Your task to perform on an android device: turn off airplane mode Image 0: 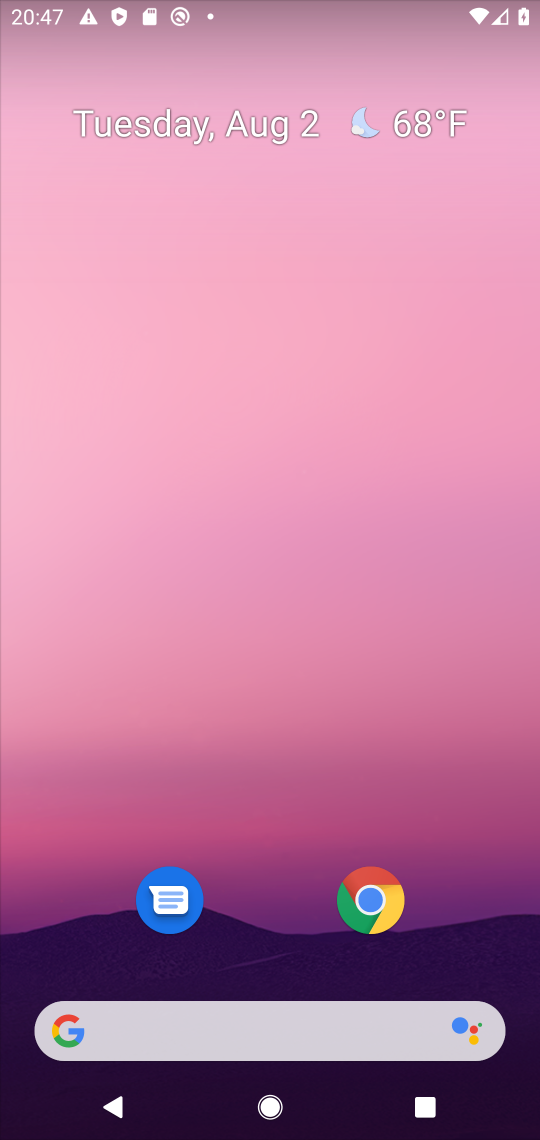
Step 0: drag from (295, 862) to (301, 17)
Your task to perform on an android device: turn off airplane mode Image 1: 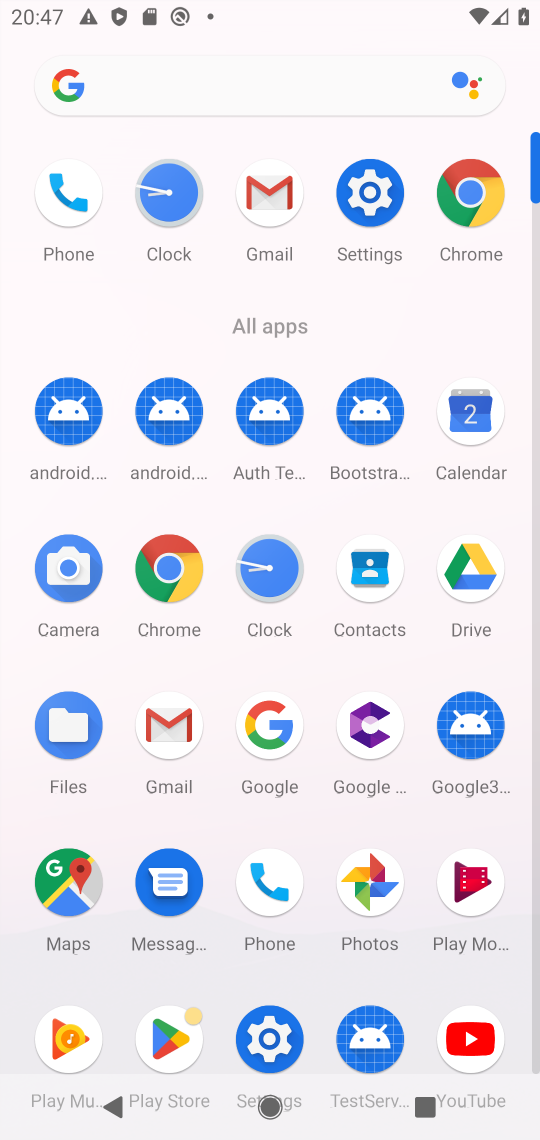
Step 1: click (371, 196)
Your task to perform on an android device: turn off airplane mode Image 2: 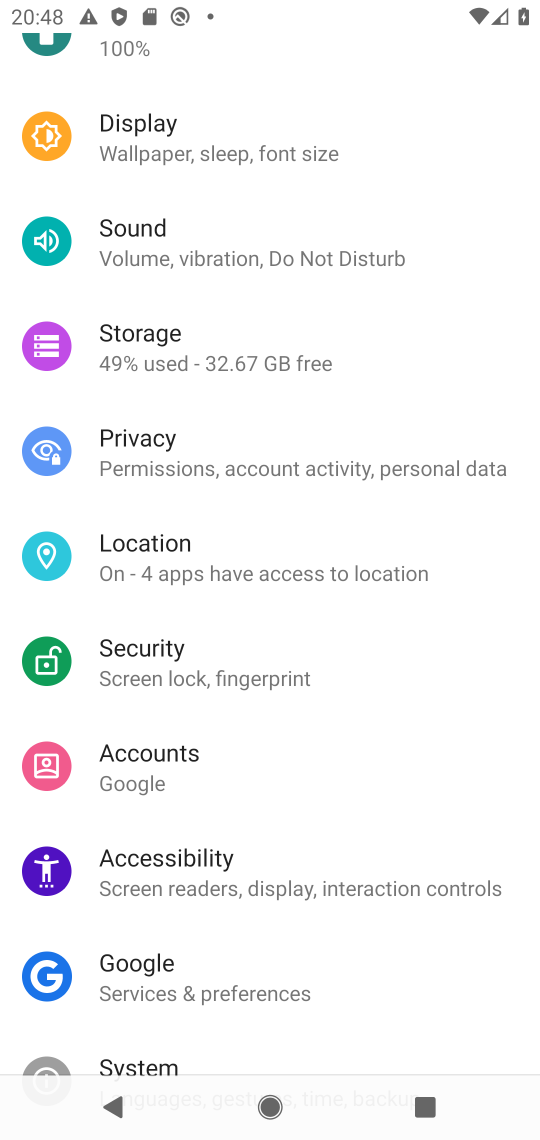
Step 2: drag from (250, 266) to (279, 876)
Your task to perform on an android device: turn off airplane mode Image 3: 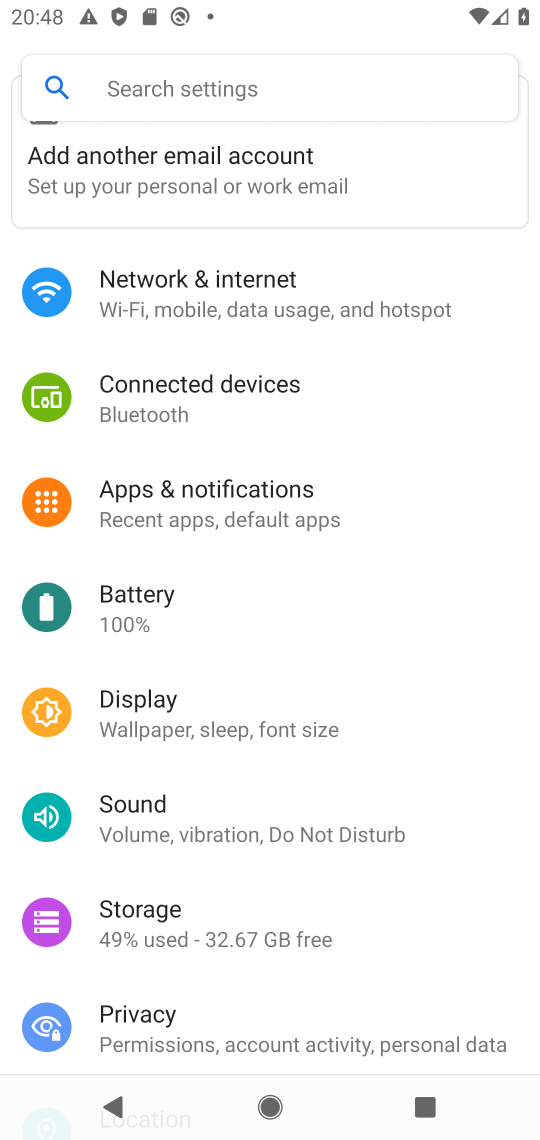
Step 3: click (301, 288)
Your task to perform on an android device: turn off airplane mode Image 4: 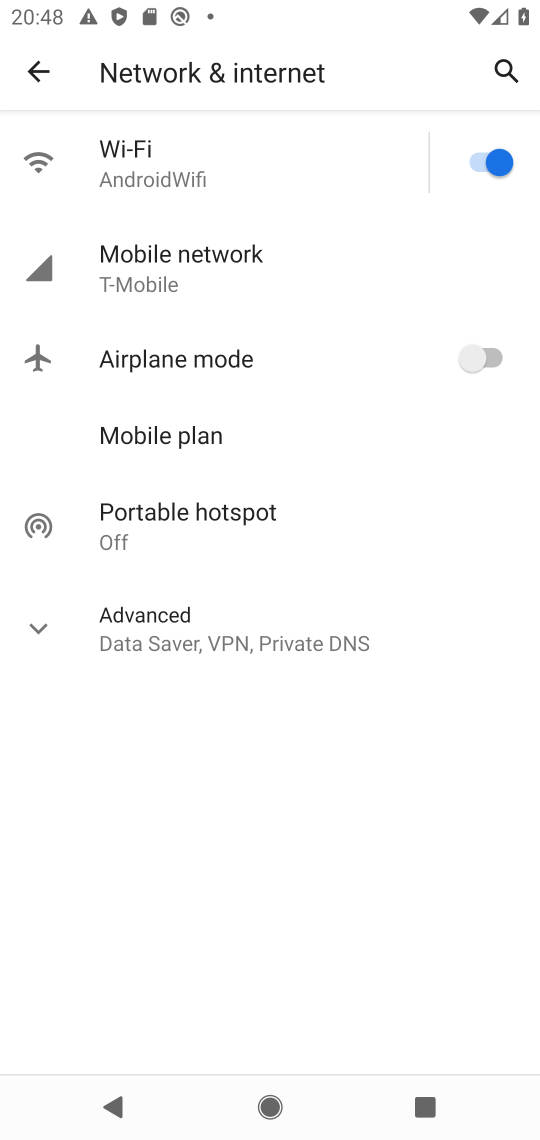
Step 4: task complete